Your task to perform on an android device: allow cookies in the chrome app Image 0: 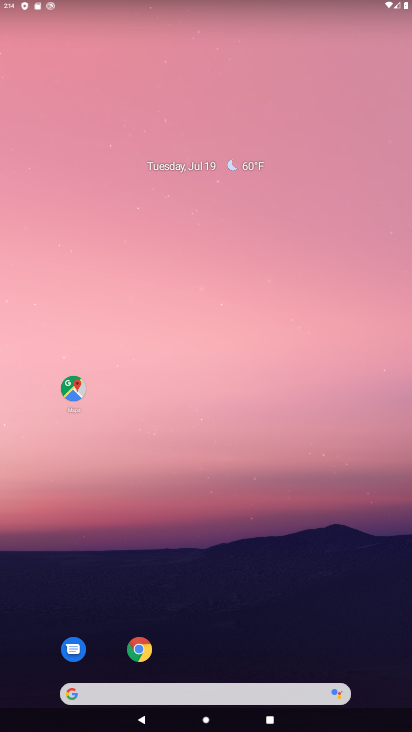
Step 0: click (144, 648)
Your task to perform on an android device: allow cookies in the chrome app Image 1: 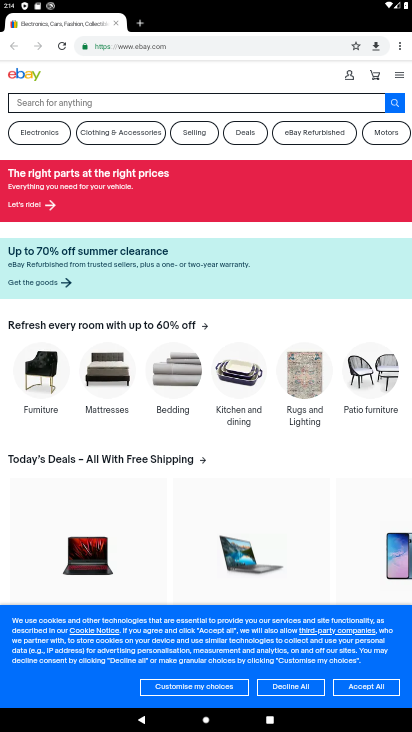
Step 1: click (391, 45)
Your task to perform on an android device: allow cookies in the chrome app Image 2: 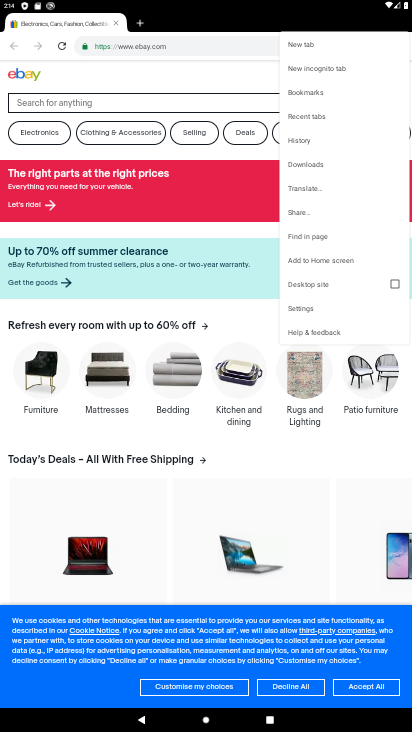
Step 2: click (317, 307)
Your task to perform on an android device: allow cookies in the chrome app Image 3: 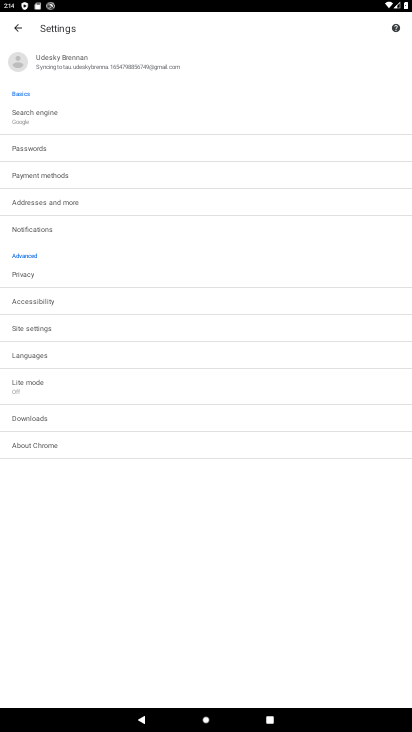
Step 3: click (28, 333)
Your task to perform on an android device: allow cookies in the chrome app Image 4: 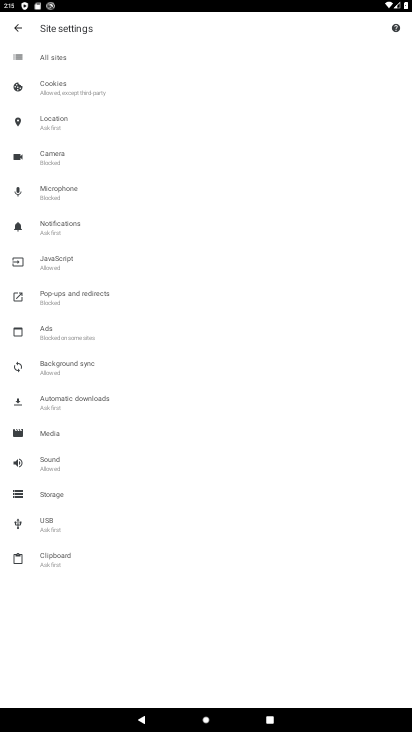
Step 4: click (124, 93)
Your task to perform on an android device: allow cookies in the chrome app Image 5: 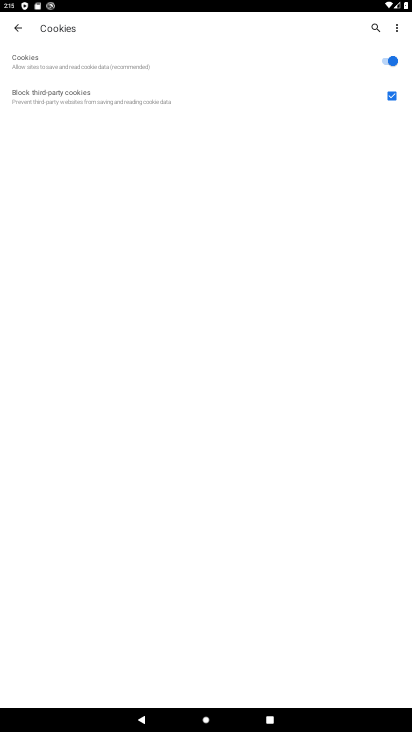
Step 5: task complete